Your task to perform on an android device: Open location settings Image 0: 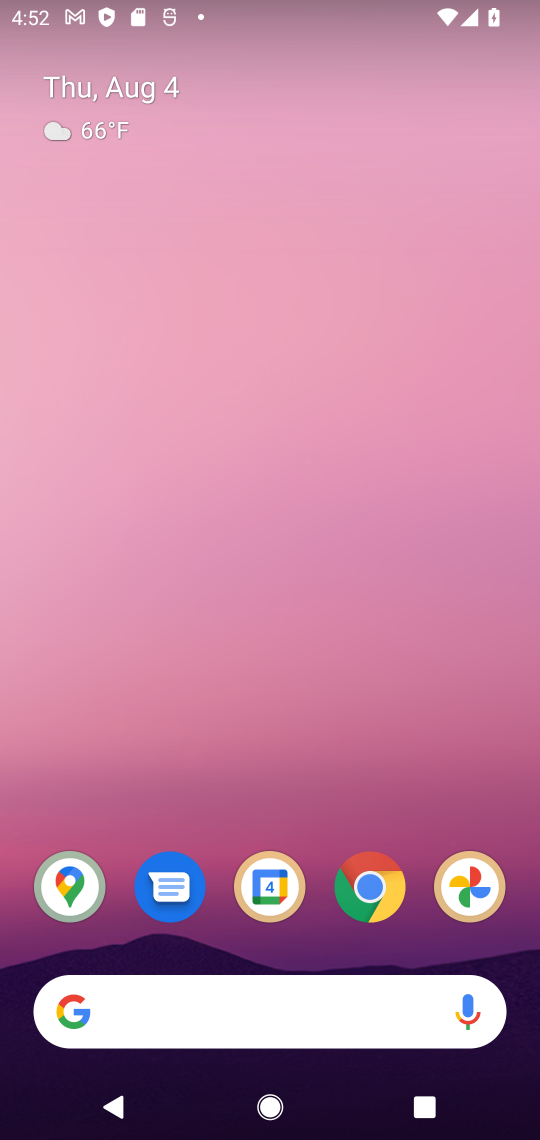
Step 0: drag from (507, 1050) to (102, 122)
Your task to perform on an android device: Open location settings Image 1: 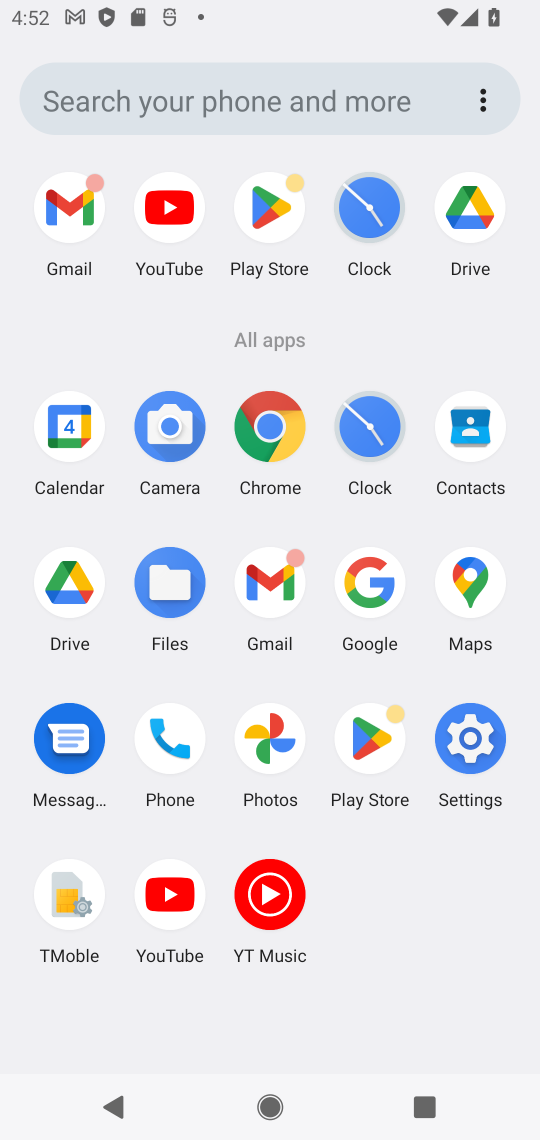
Step 1: click (470, 732)
Your task to perform on an android device: Open location settings Image 2: 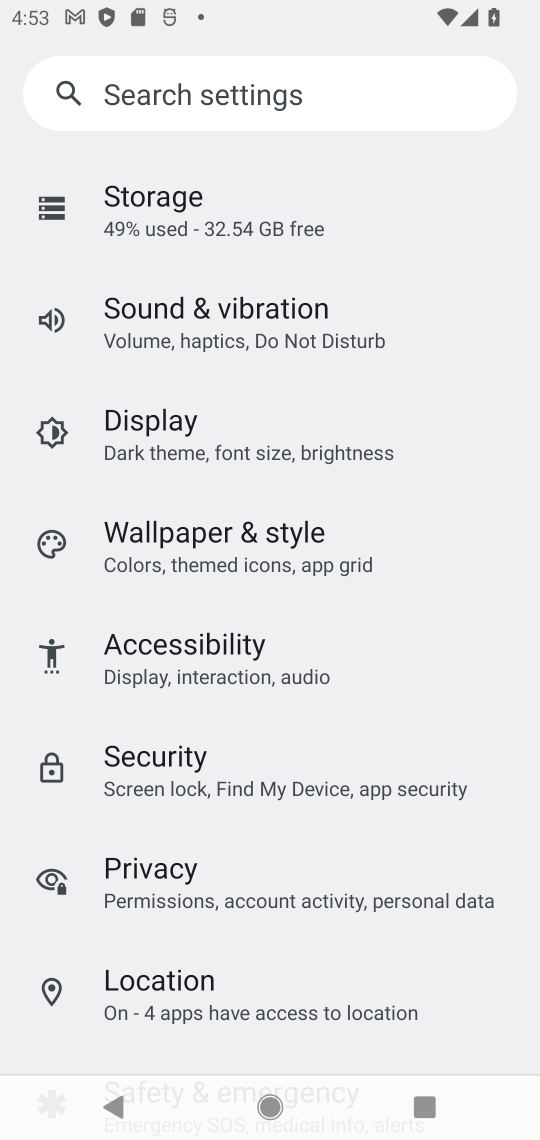
Step 2: click (131, 968)
Your task to perform on an android device: Open location settings Image 3: 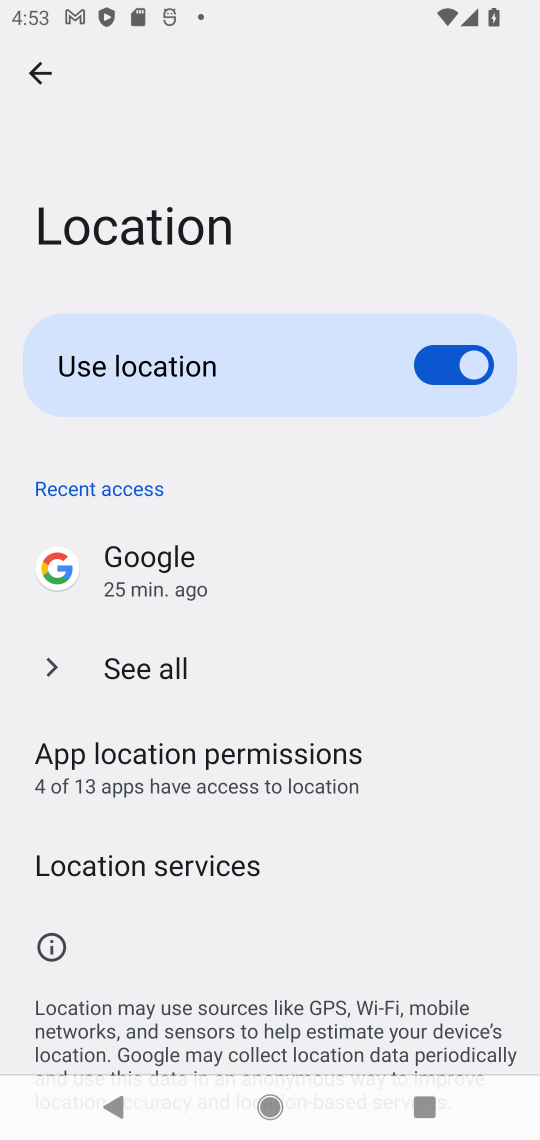
Step 3: task complete